Your task to perform on an android device: Open battery settings Image 0: 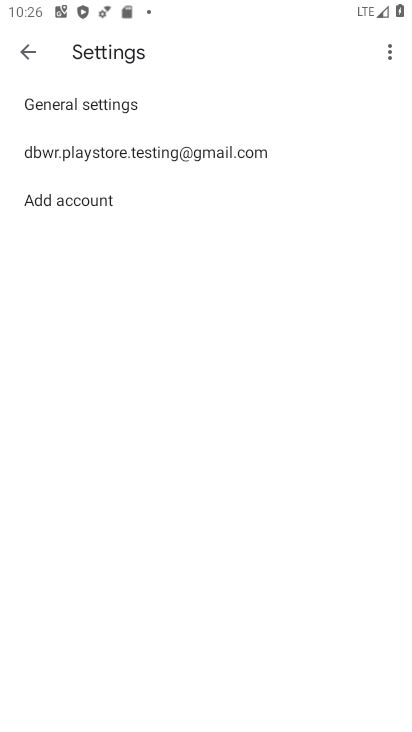
Step 0: press home button
Your task to perform on an android device: Open battery settings Image 1: 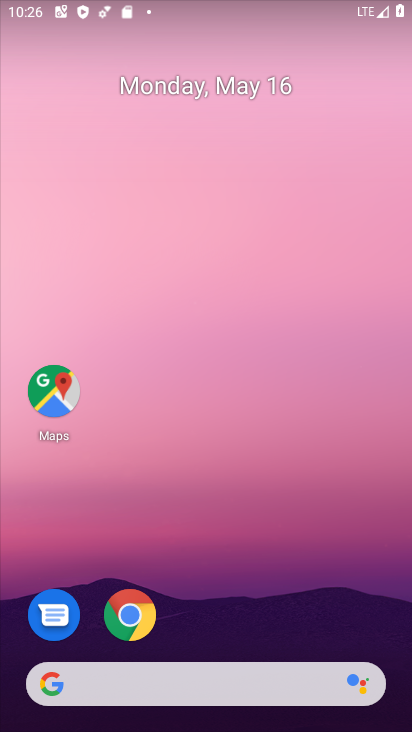
Step 1: drag from (233, 651) to (327, 89)
Your task to perform on an android device: Open battery settings Image 2: 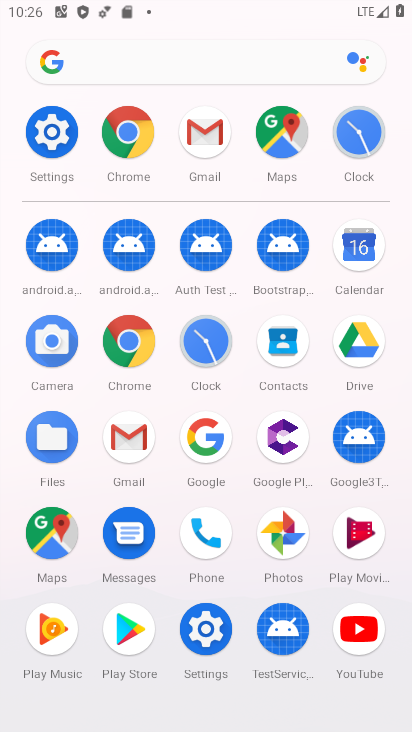
Step 2: click (45, 150)
Your task to perform on an android device: Open battery settings Image 3: 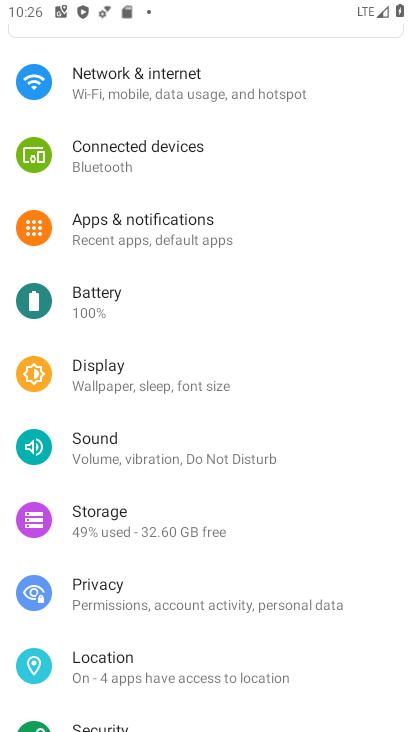
Step 3: click (172, 295)
Your task to perform on an android device: Open battery settings Image 4: 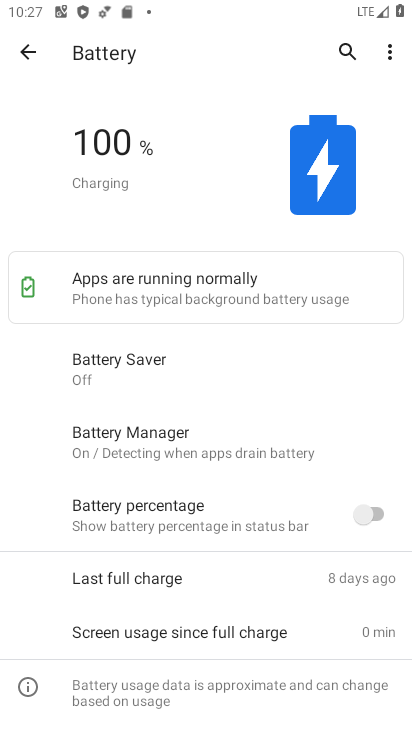
Step 4: task complete